Your task to perform on an android device: set an alarm Image 0: 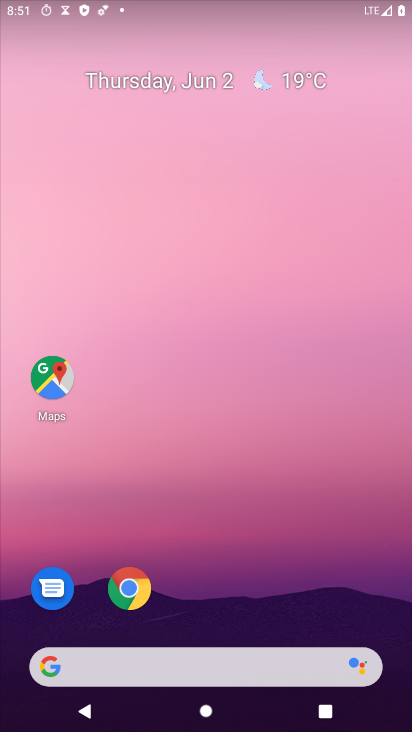
Step 0: drag from (219, 614) to (258, 139)
Your task to perform on an android device: set an alarm Image 1: 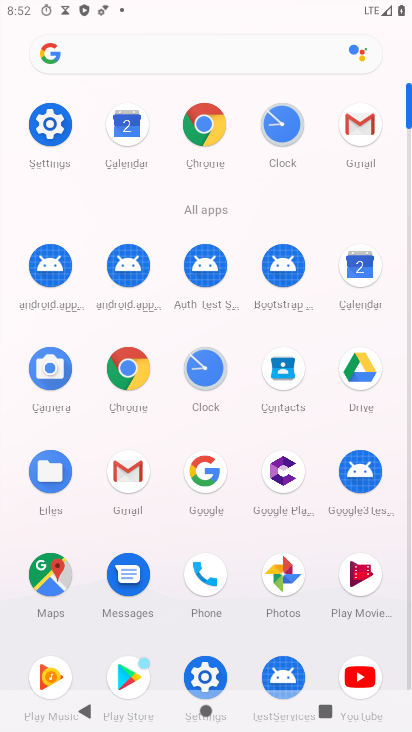
Step 1: click (270, 123)
Your task to perform on an android device: set an alarm Image 2: 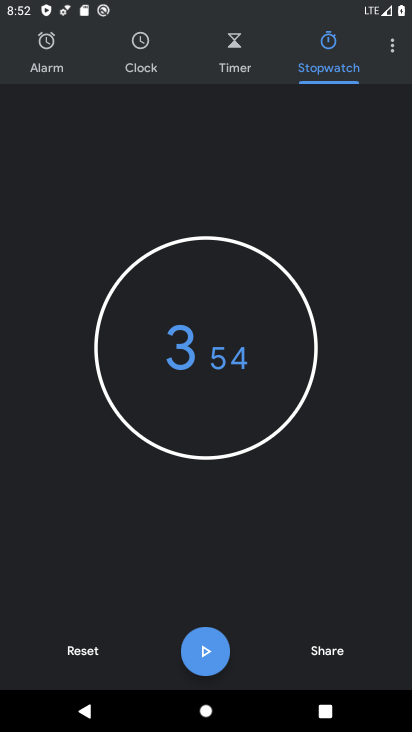
Step 2: click (50, 68)
Your task to perform on an android device: set an alarm Image 3: 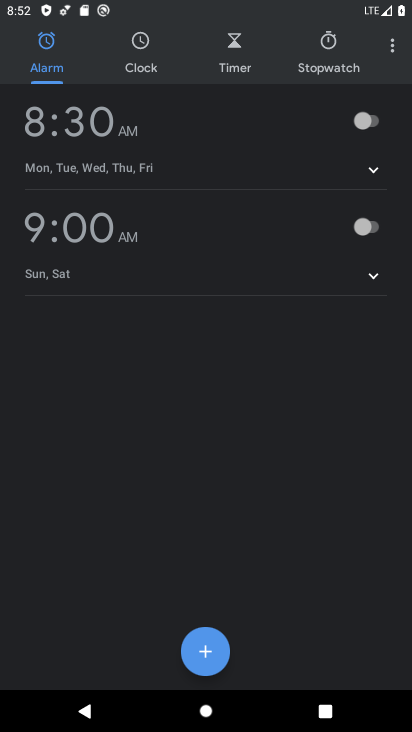
Step 3: task complete